Your task to perform on an android device: Open the web browser Image 0: 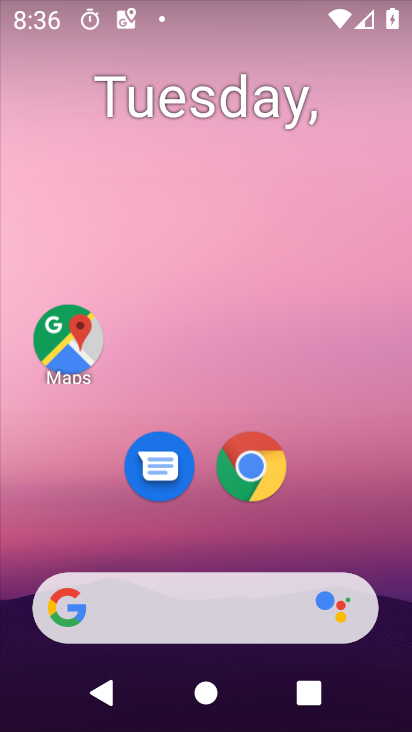
Step 0: click (260, 473)
Your task to perform on an android device: Open the web browser Image 1: 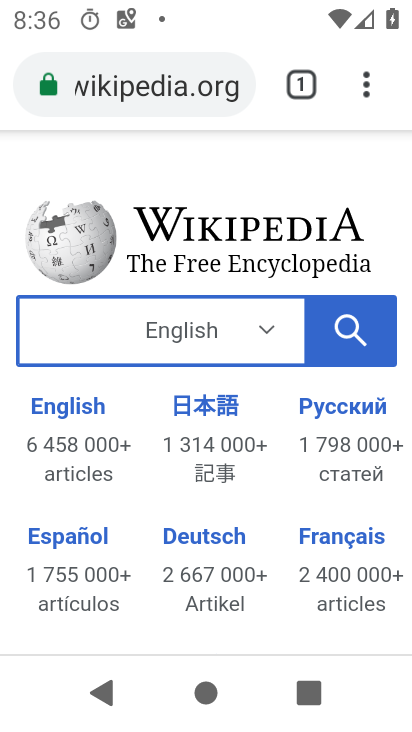
Step 1: task complete